Your task to perform on an android device: turn on the 24-hour format for clock Image 0: 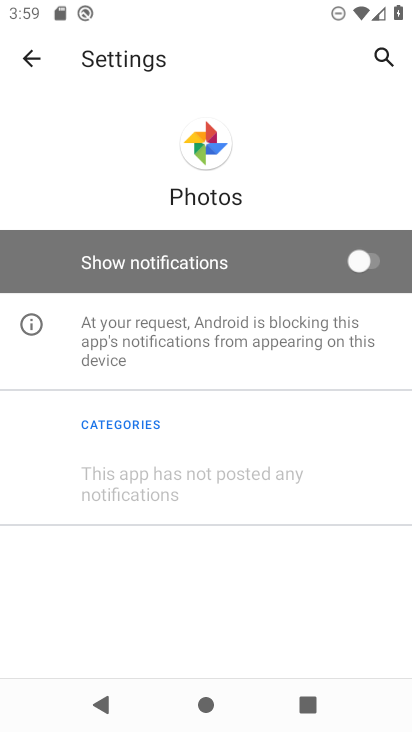
Step 0: press home button
Your task to perform on an android device: turn on the 24-hour format for clock Image 1: 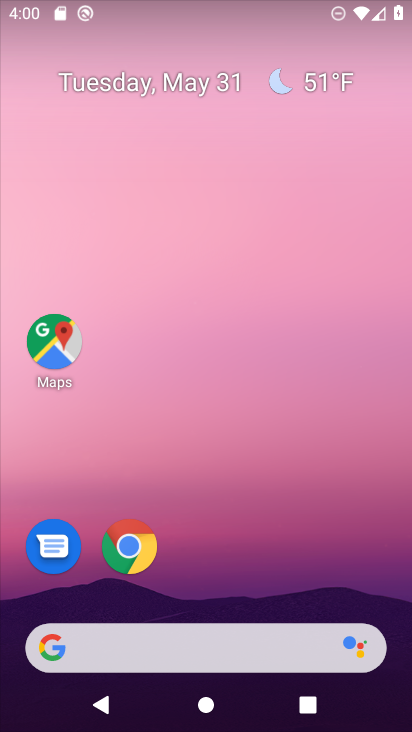
Step 1: drag from (195, 586) to (225, 173)
Your task to perform on an android device: turn on the 24-hour format for clock Image 2: 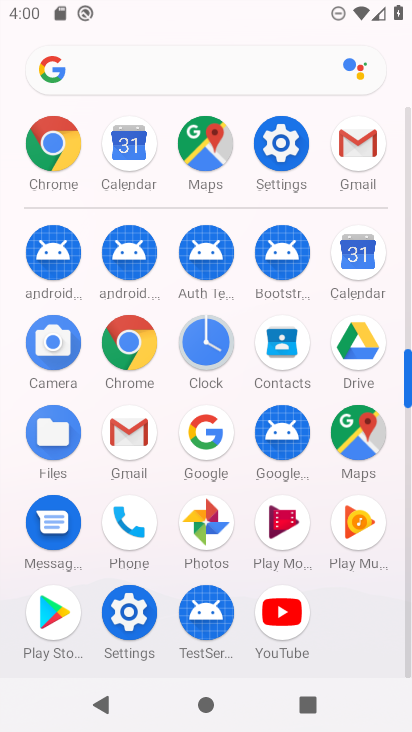
Step 2: click (204, 346)
Your task to perform on an android device: turn on the 24-hour format for clock Image 3: 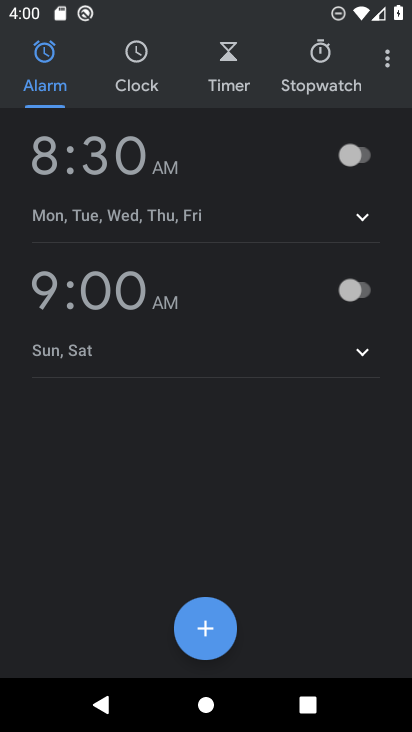
Step 3: click (388, 69)
Your task to perform on an android device: turn on the 24-hour format for clock Image 4: 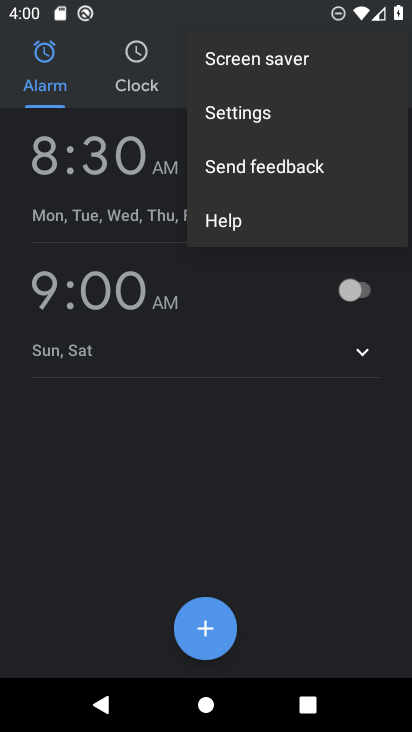
Step 4: click (257, 113)
Your task to perform on an android device: turn on the 24-hour format for clock Image 5: 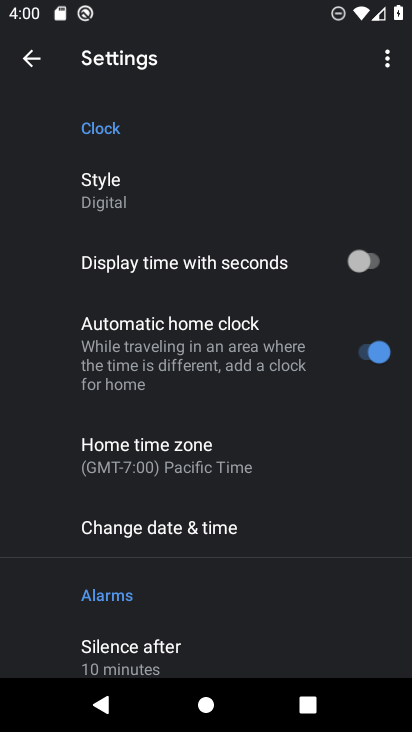
Step 5: click (163, 522)
Your task to perform on an android device: turn on the 24-hour format for clock Image 6: 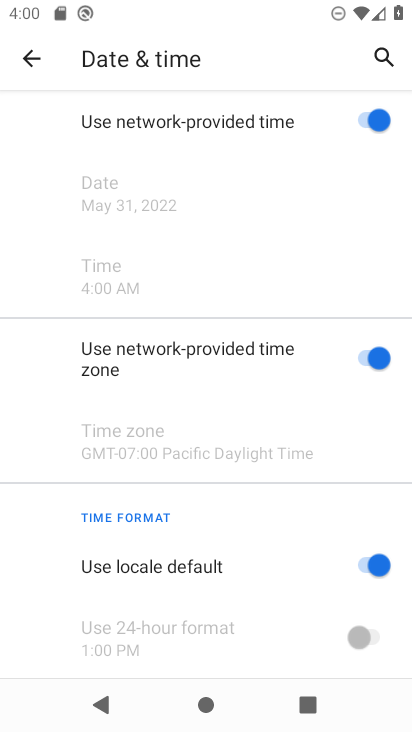
Step 6: drag from (203, 618) to (288, 339)
Your task to perform on an android device: turn on the 24-hour format for clock Image 7: 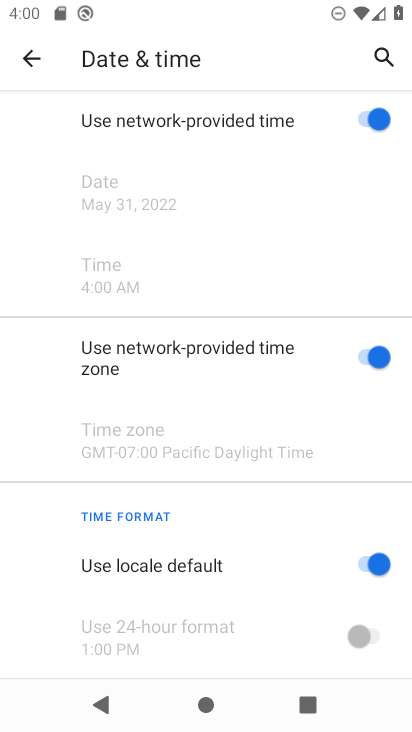
Step 7: click (365, 562)
Your task to perform on an android device: turn on the 24-hour format for clock Image 8: 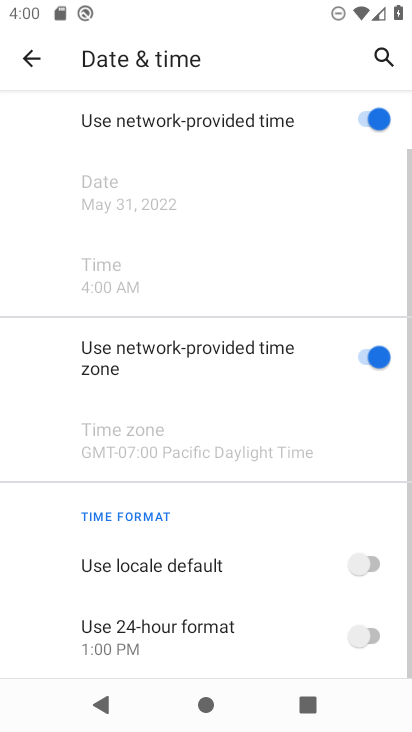
Step 8: click (373, 640)
Your task to perform on an android device: turn on the 24-hour format for clock Image 9: 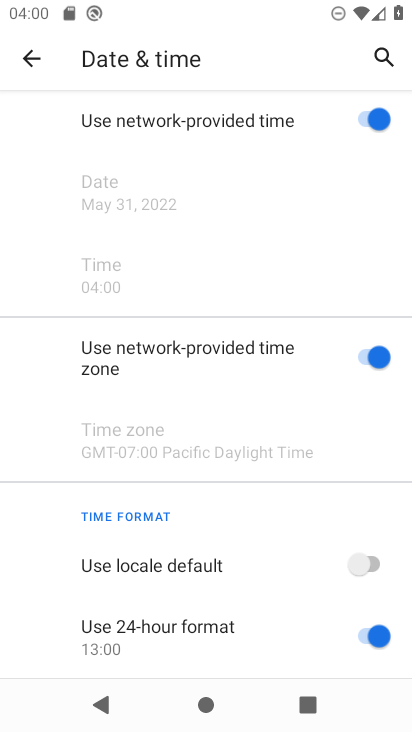
Step 9: task complete